Your task to perform on an android device: uninstall "DoorDash - Food Delivery" Image 0: 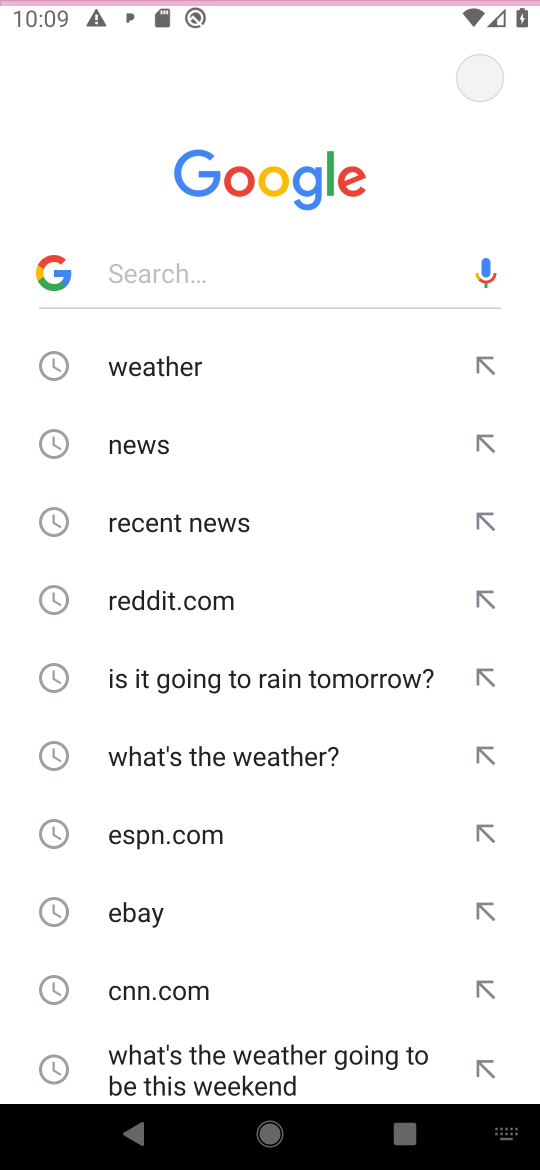
Step 0: press home button
Your task to perform on an android device: uninstall "DoorDash - Food Delivery" Image 1: 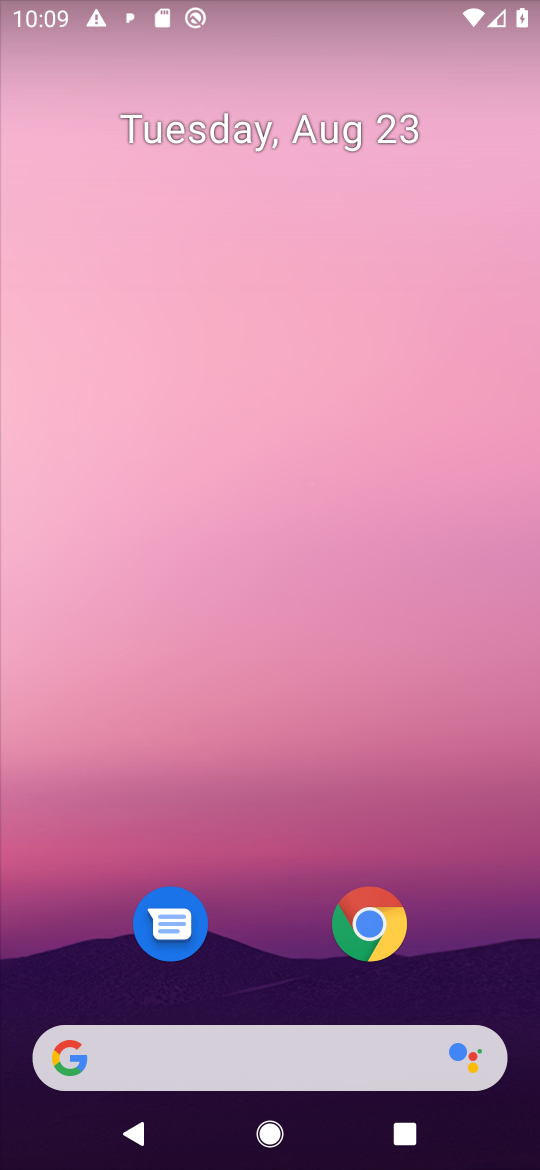
Step 1: drag from (462, 975) to (432, 158)
Your task to perform on an android device: uninstall "DoorDash - Food Delivery" Image 2: 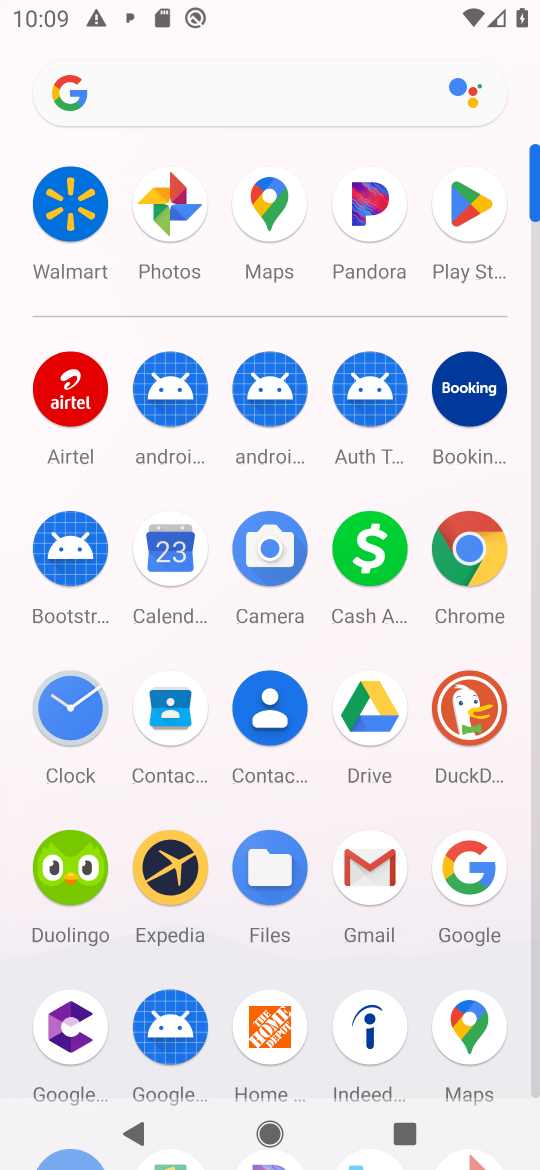
Step 2: click (468, 206)
Your task to perform on an android device: uninstall "DoorDash - Food Delivery" Image 3: 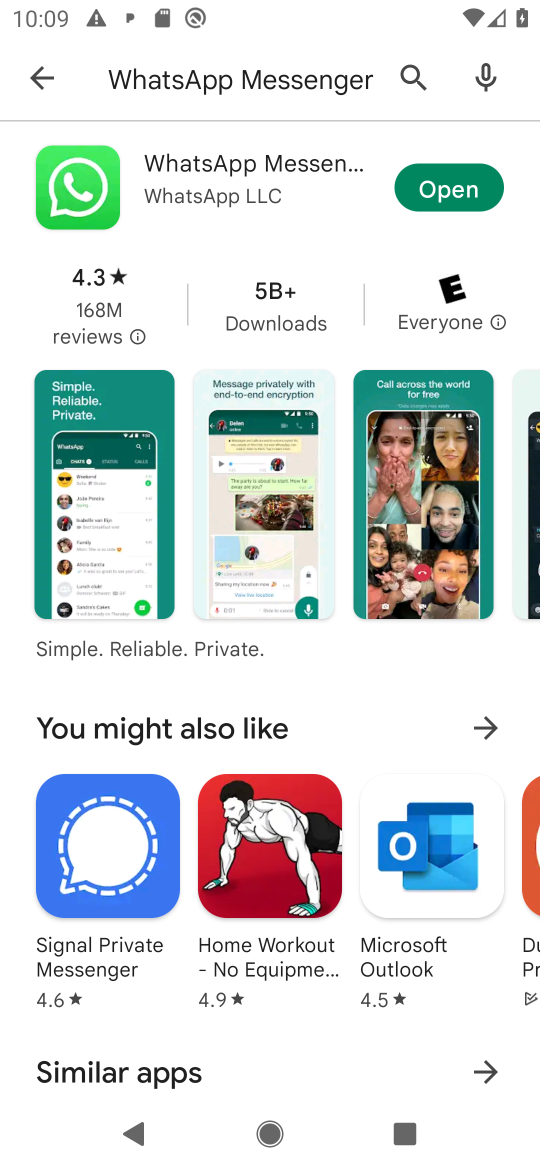
Step 3: press back button
Your task to perform on an android device: uninstall "DoorDash - Food Delivery" Image 4: 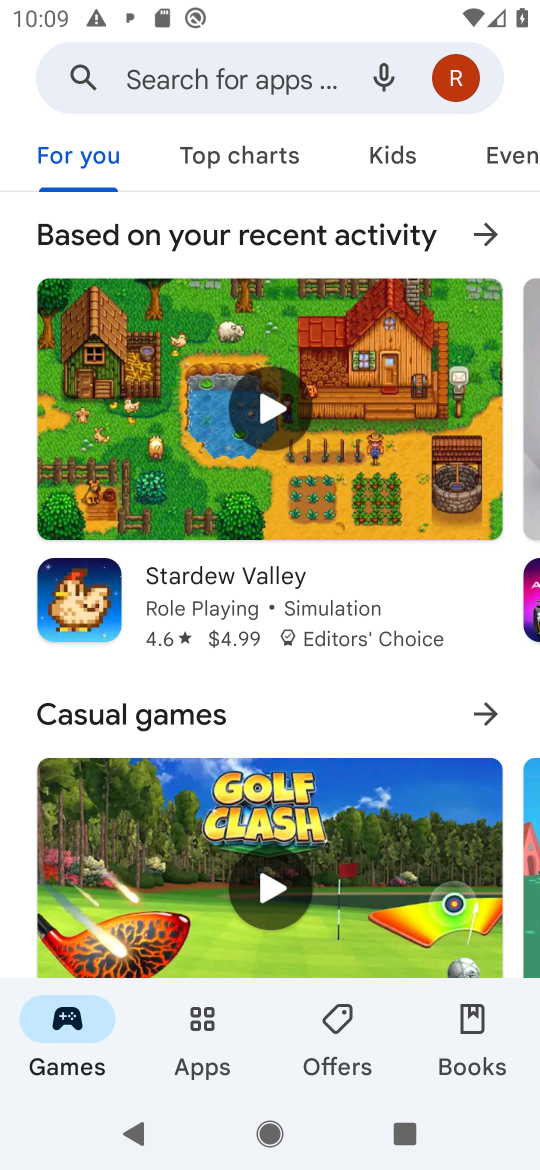
Step 4: click (257, 79)
Your task to perform on an android device: uninstall "DoorDash - Food Delivery" Image 5: 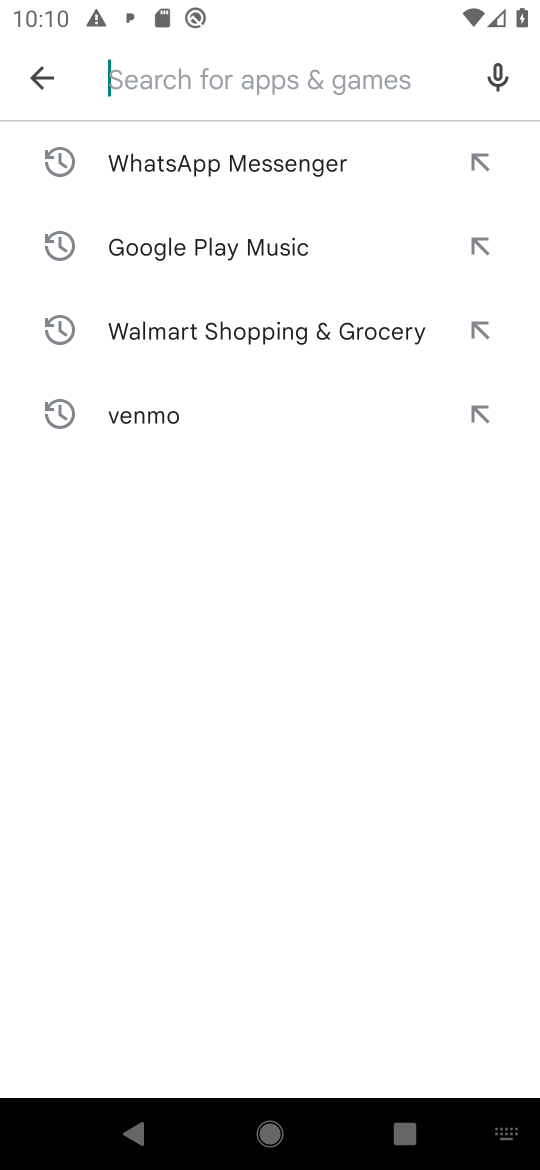
Step 5: type "DoorDash - Food Delivery"
Your task to perform on an android device: uninstall "DoorDash - Food Delivery" Image 6: 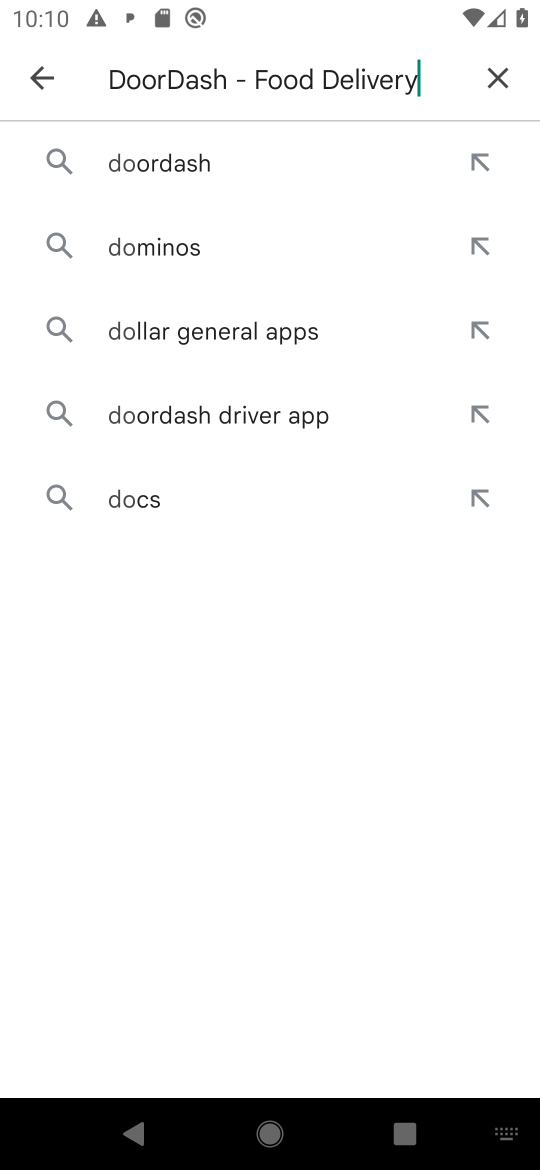
Step 6: press enter
Your task to perform on an android device: uninstall "DoorDash - Food Delivery" Image 7: 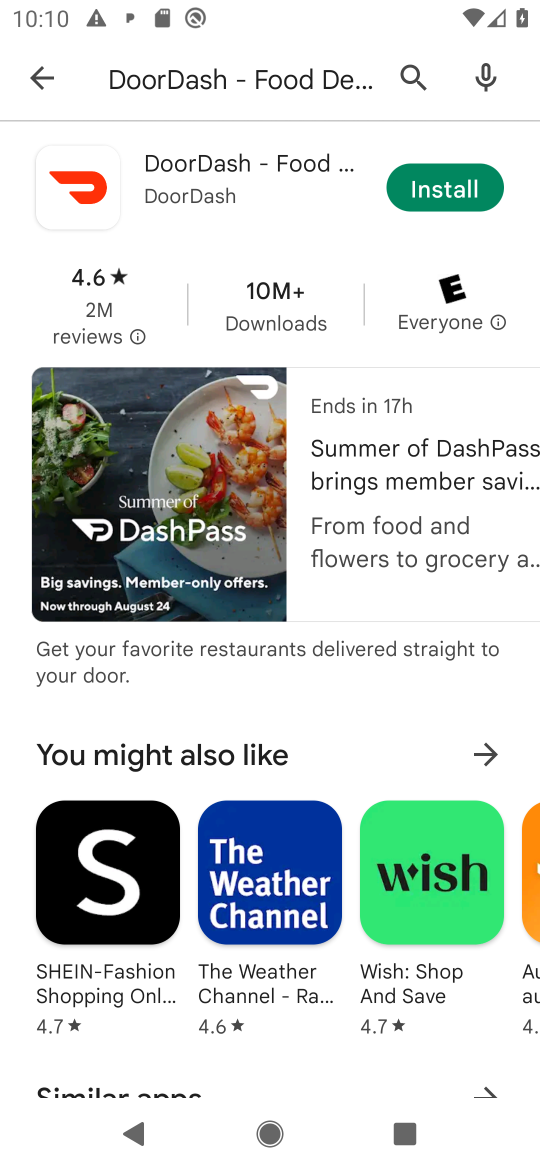
Step 7: task complete